Your task to perform on an android device: open app "DoorDash - Dasher" (install if not already installed) Image 0: 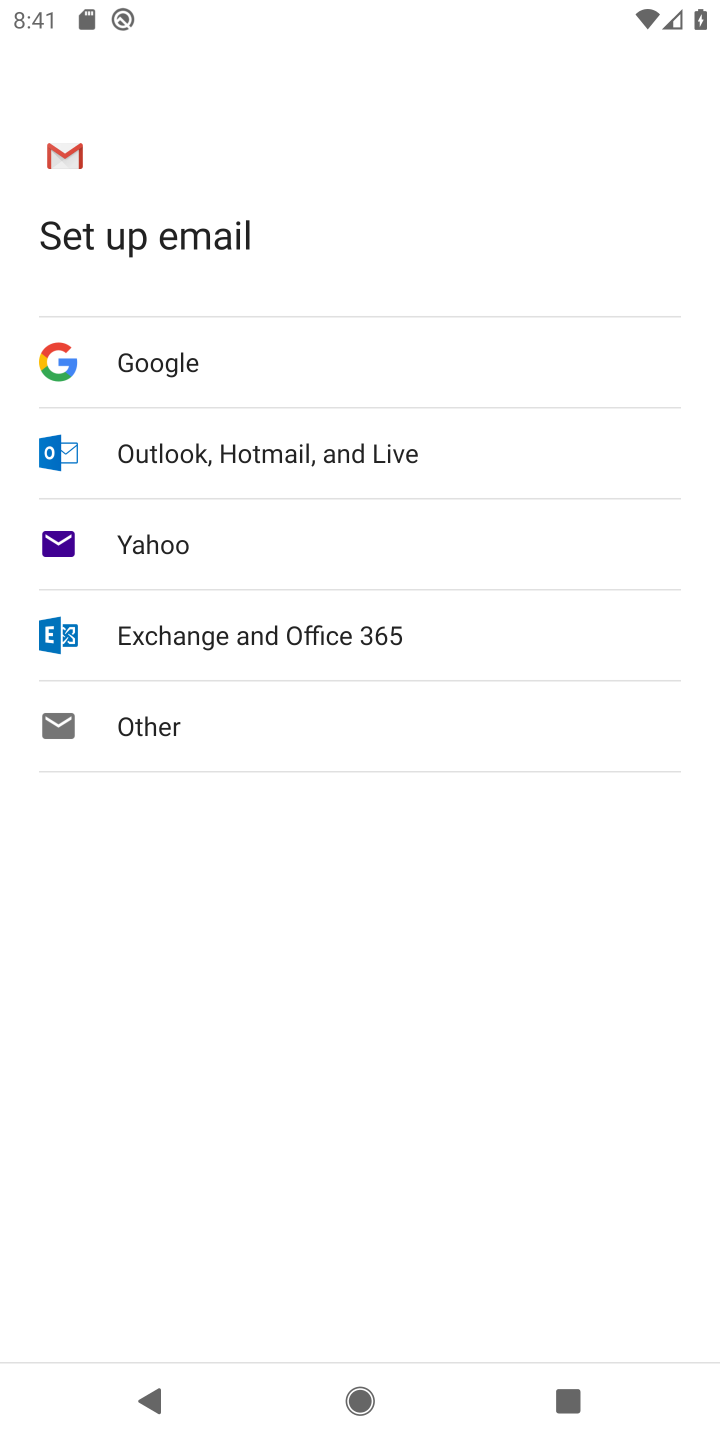
Step 0: press home button
Your task to perform on an android device: open app "DoorDash - Dasher" (install if not already installed) Image 1: 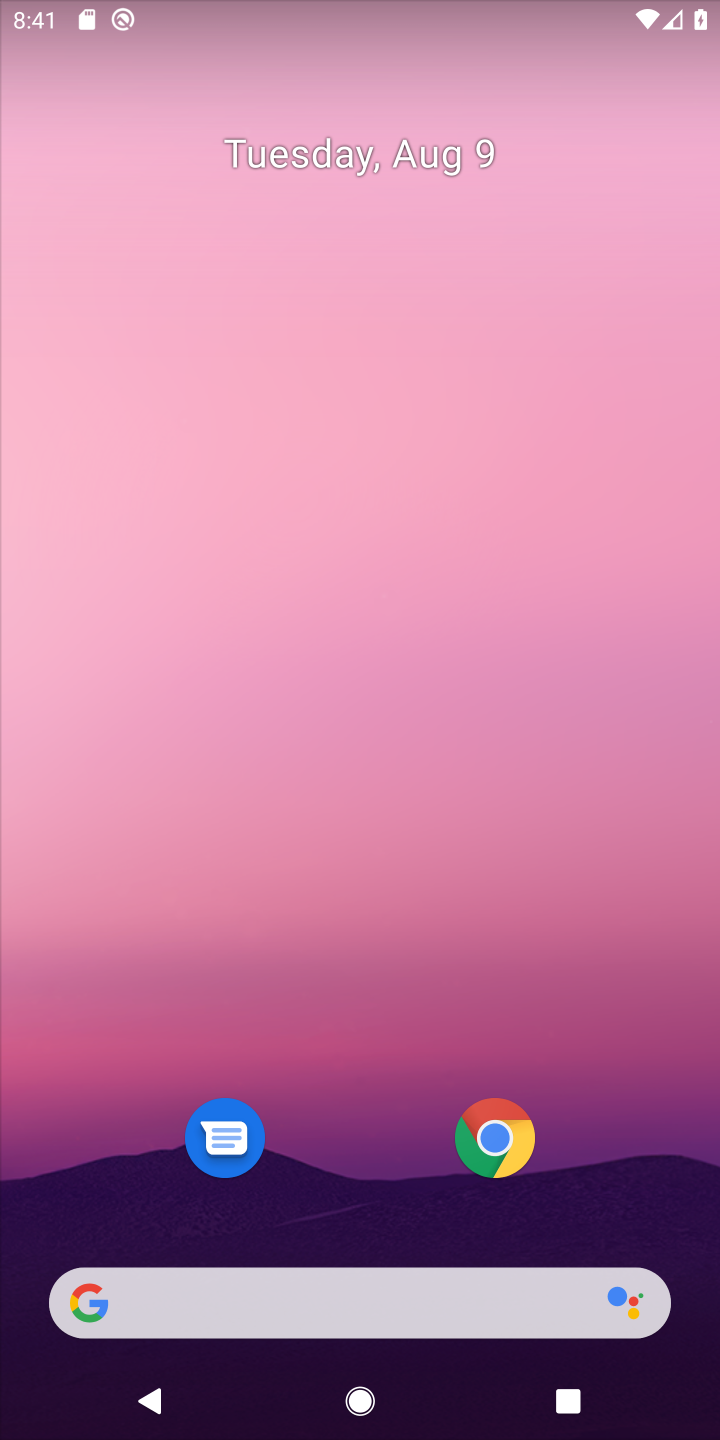
Step 1: drag from (346, 693) to (368, 369)
Your task to perform on an android device: open app "DoorDash - Dasher" (install if not already installed) Image 2: 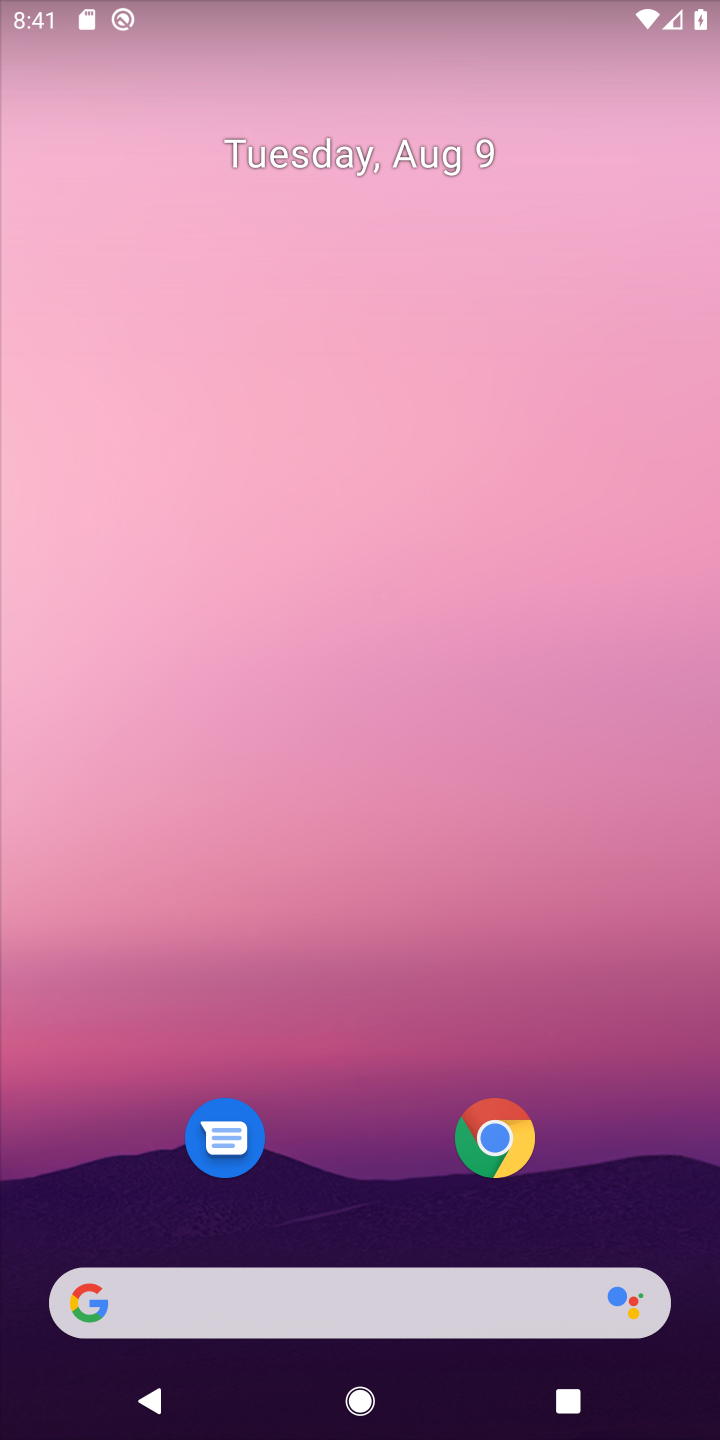
Step 2: drag from (313, 914) to (374, 443)
Your task to perform on an android device: open app "DoorDash - Dasher" (install if not already installed) Image 3: 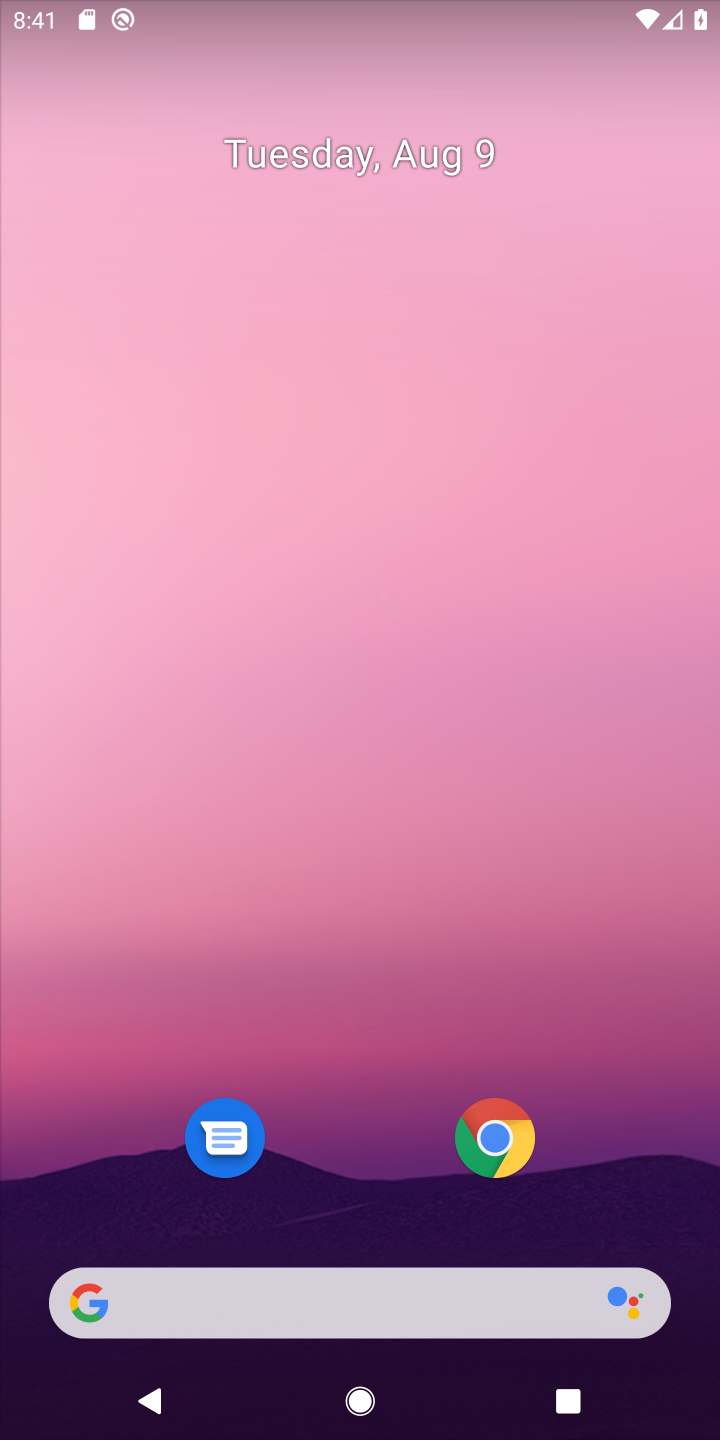
Step 3: drag from (334, 1135) to (401, 373)
Your task to perform on an android device: open app "DoorDash - Dasher" (install if not already installed) Image 4: 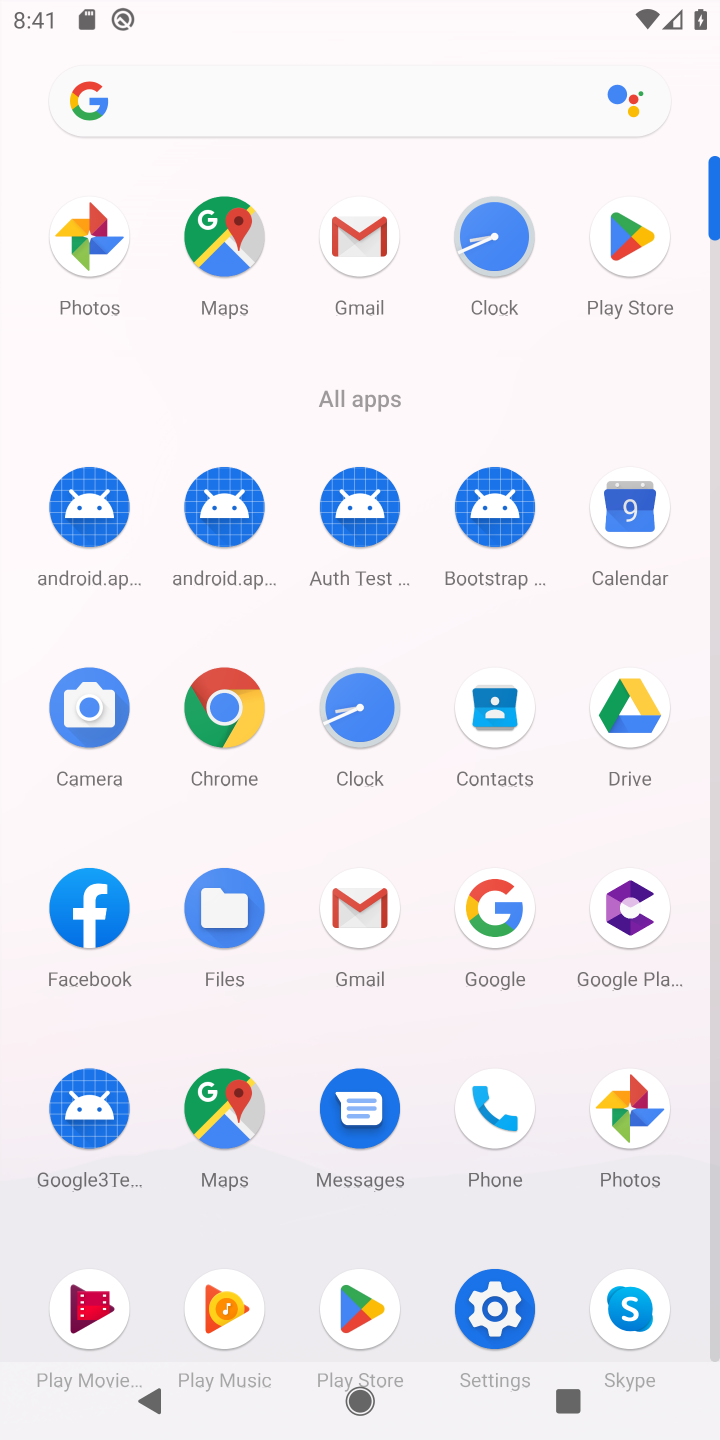
Step 4: click (623, 252)
Your task to perform on an android device: open app "DoorDash - Dasher" (install if not already installed) Image 5: 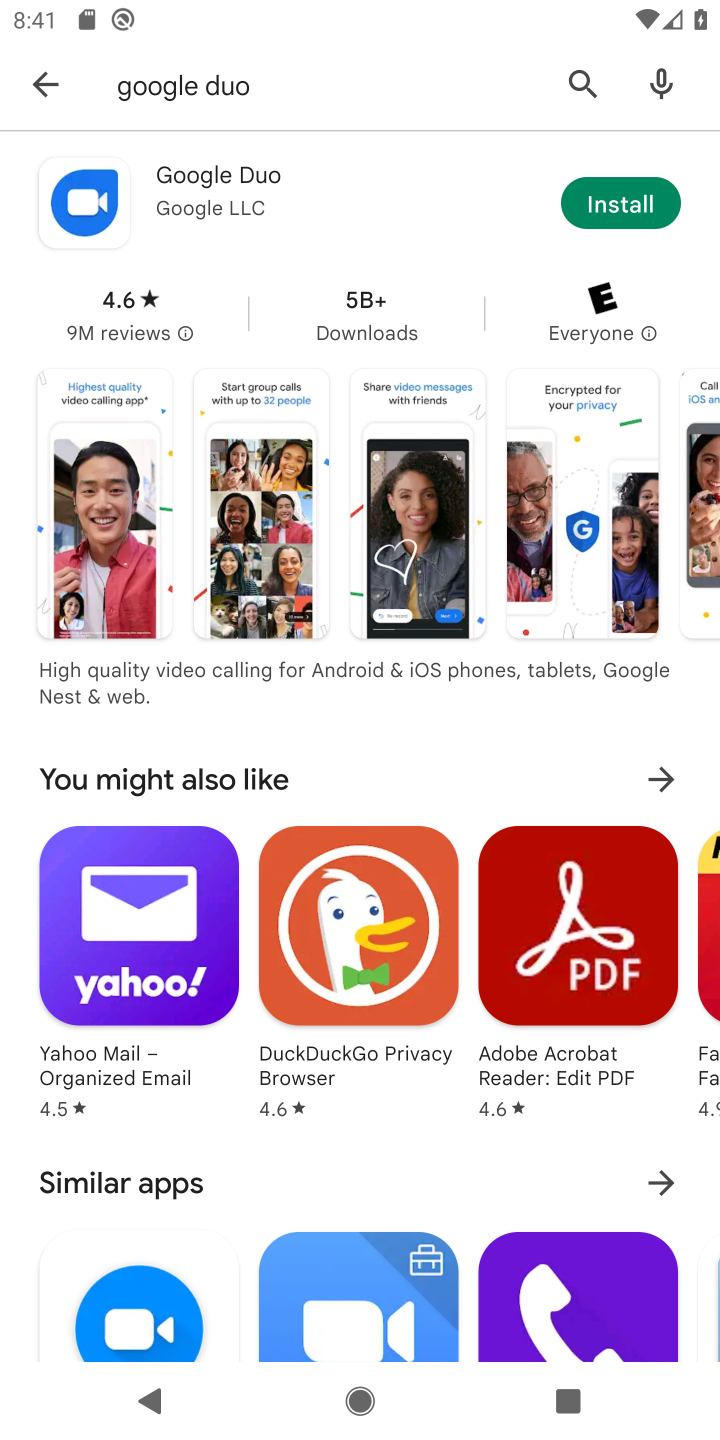
Step 5: click (586, 83)
Your task to perform on an android device: open app "DoorDash - Dasher" (install if not already installed) Image 6: 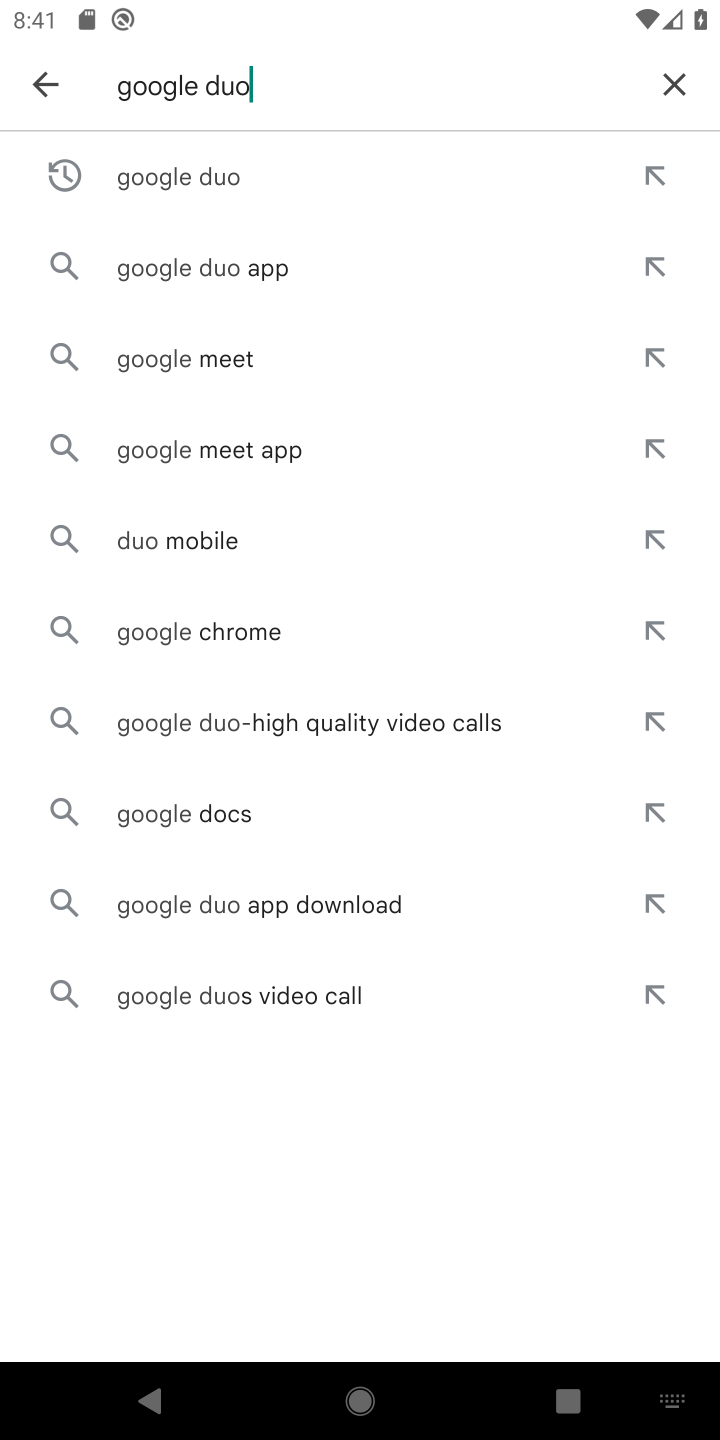
Step 6: click (662, 80)
Your task to perform on an android device: open app "DoorDash - Dasher" (install if not already installed) Image 7: 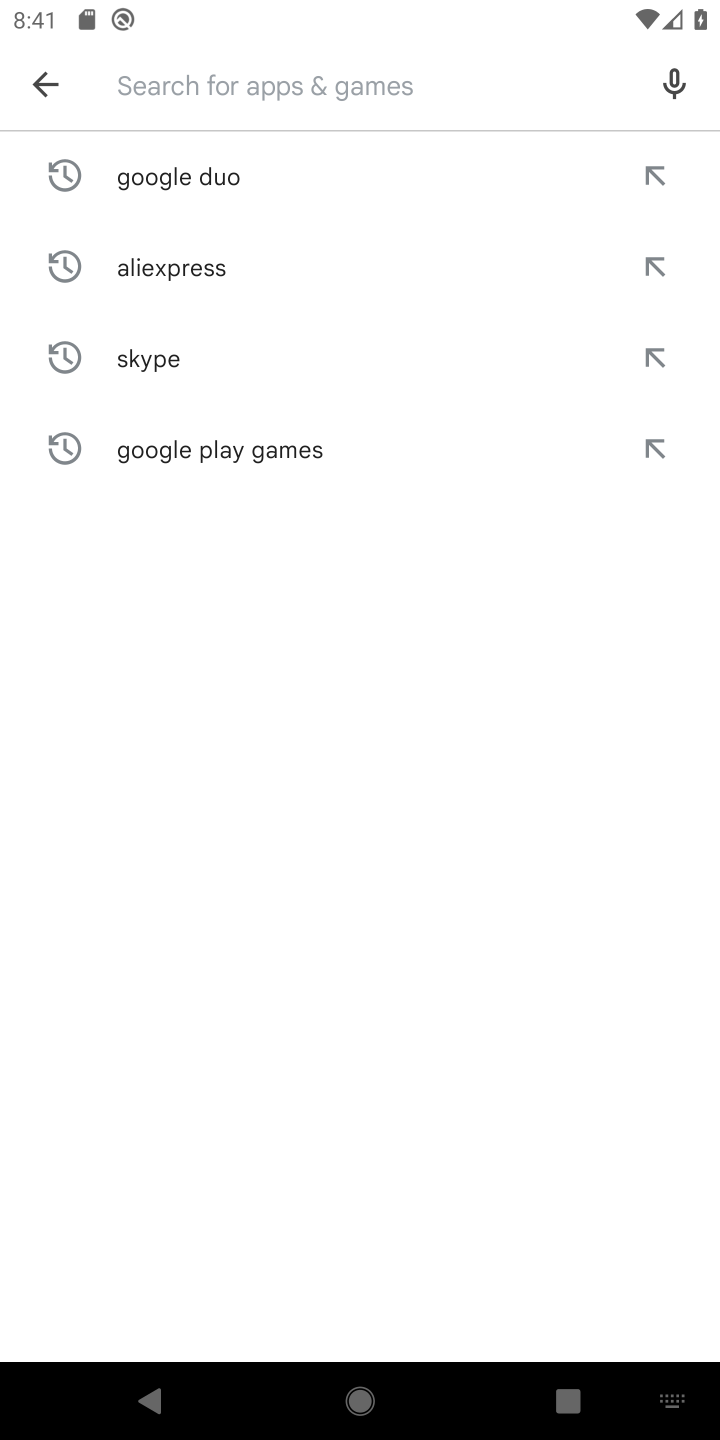
Step 7: type "DoorDash - Dasher"
Your task to perform on an android device: open app "DoorDash - Dasher" (install if not already installed) Image 8: 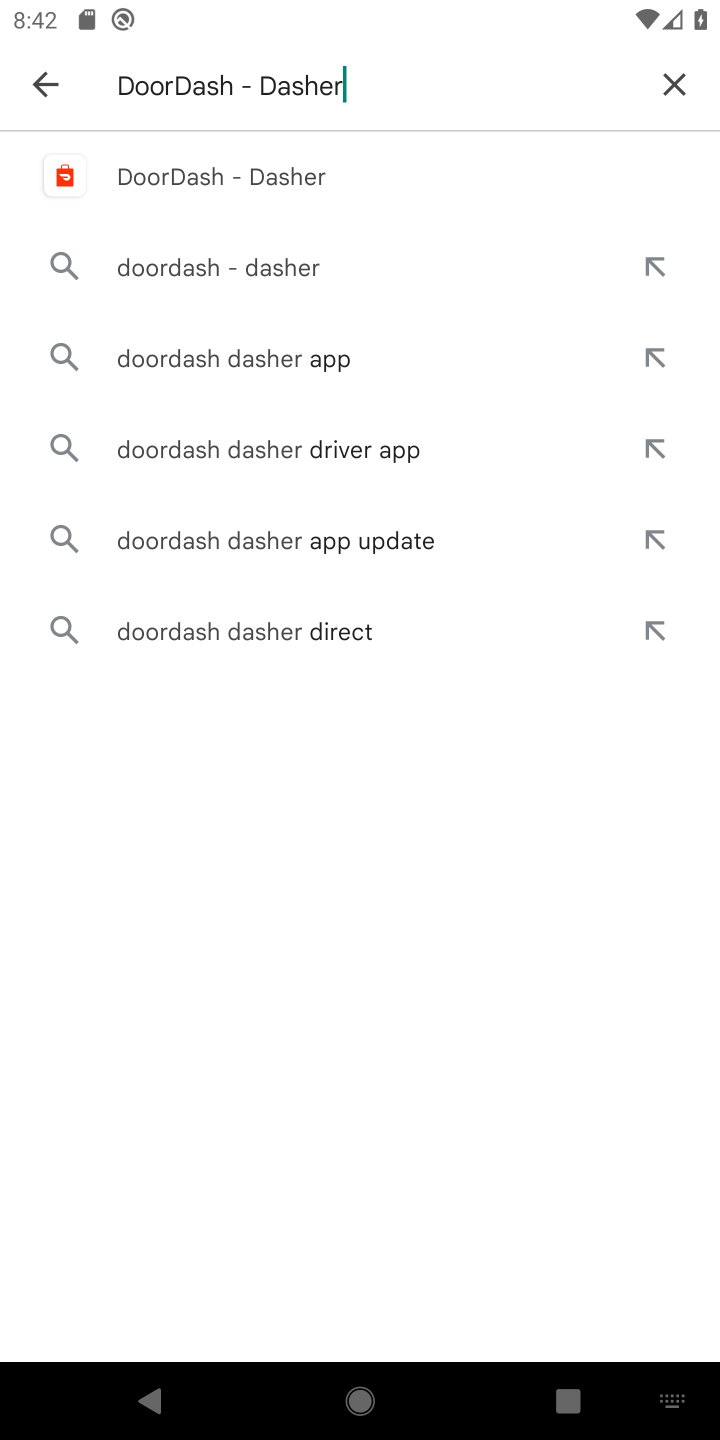
Step 8: click (234, 181)
Your task to perform on an android device: open app "DoorDash - Dasher" (install if not already installed) Image 9: 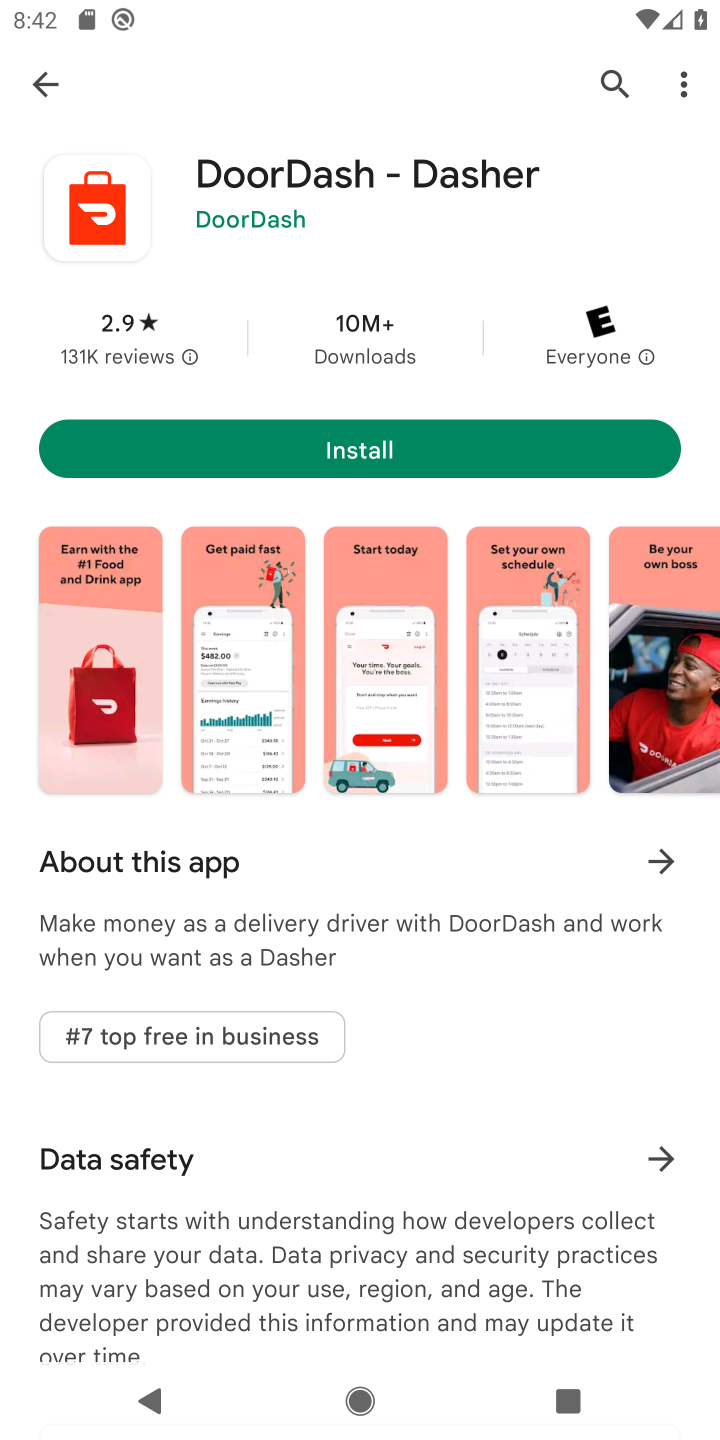
Step 9: click (351, 458)
Your task to perform on an android device: open app "DoorDash - Dasher" (install if not already installed) Image 10: 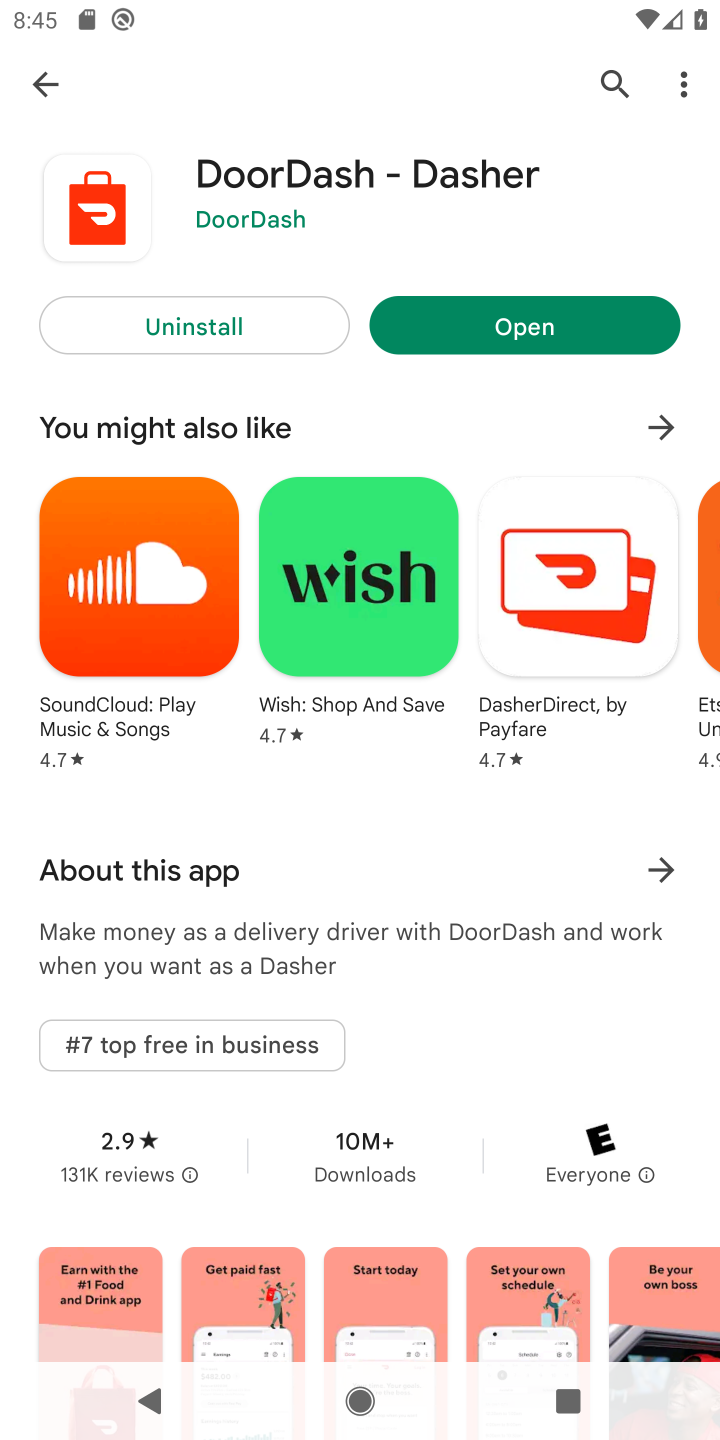
Step 10: click (558, 342)
Your task to perform on an android device: open app "DoorDash - Dasher" (install if not already installed) Image 11: 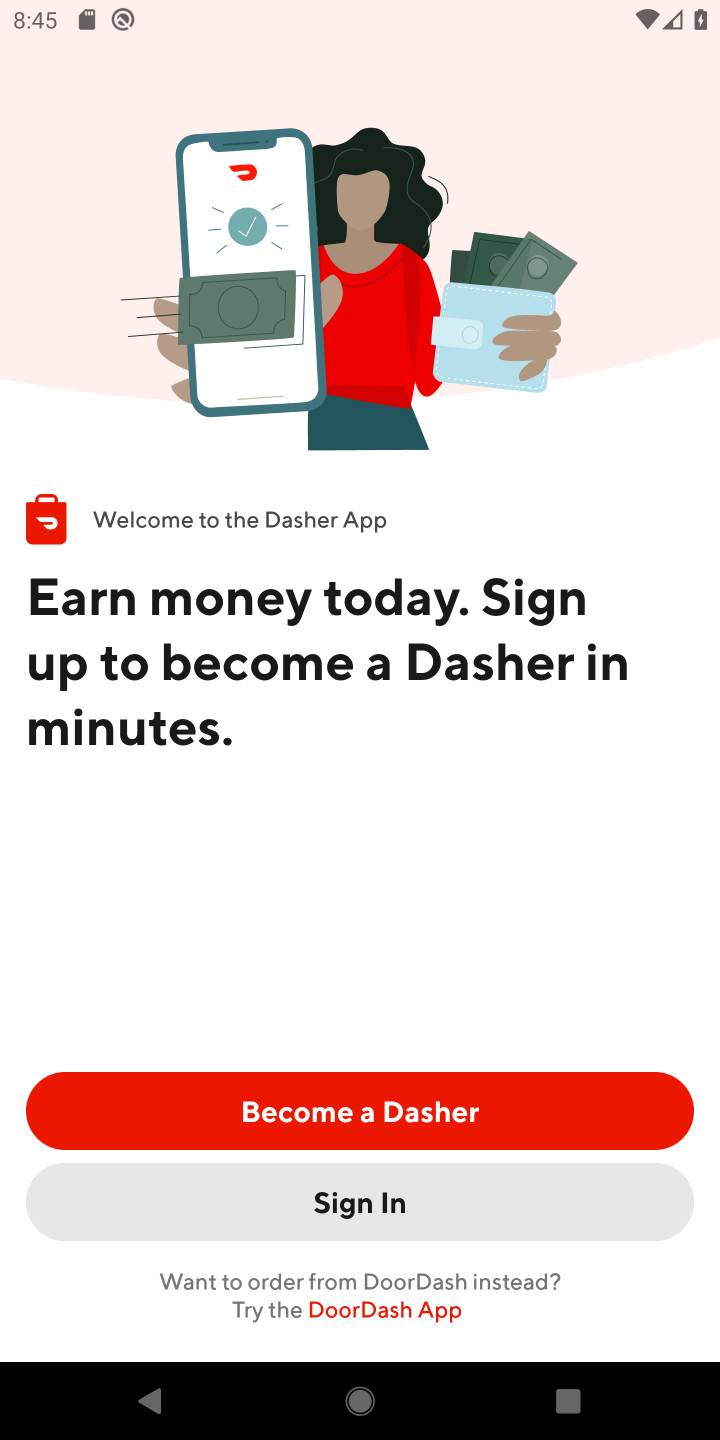
Step 11: task complete